Your task to perform on an android device: Open Youtube and go to the subscriptions tab Image 0: 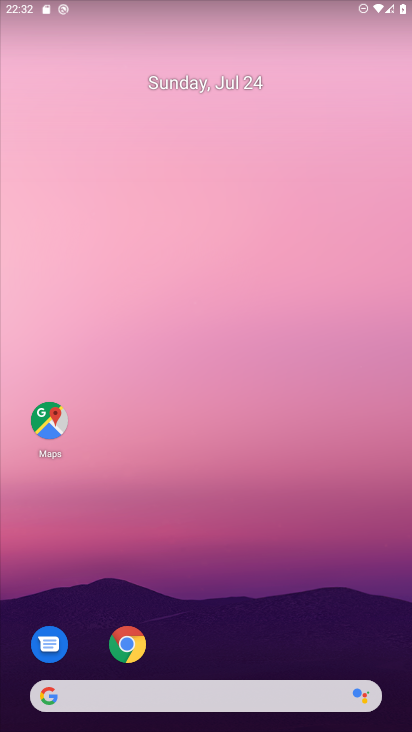
Step 0: drag from (383, 647) to (331, 18)
Your task to perform on an android device: Open Youtube and go to the subscriptions tab Image 1: 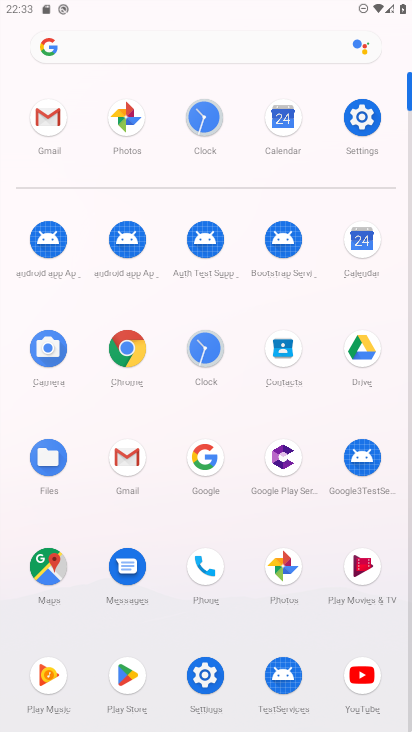
Step 1: click (364, 674)
Your task to perform on an android device: Open Youtube and go to the subscriptions tab Image 2: 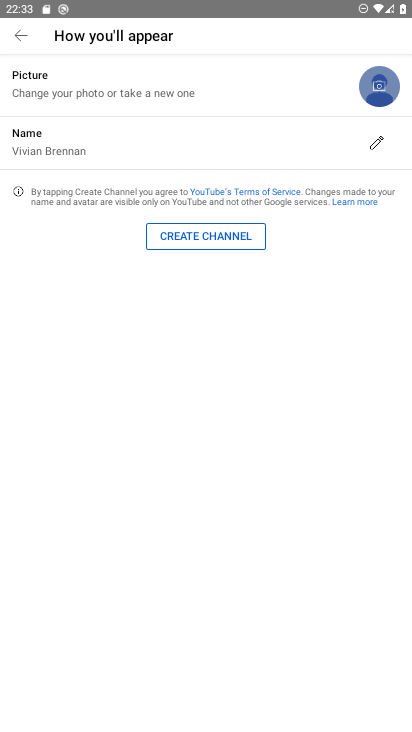
Step 2: press back button
Your task to perform on an android device: Open Youtube and go to the subscriptions tab Image 3: 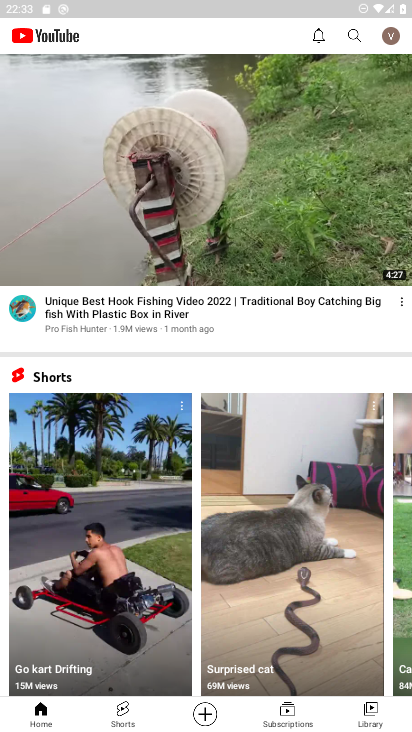
Step 3: click (291, 712)
Your task to perform on an android device: Open Youtube and go to the subscriptions tab Image 4: 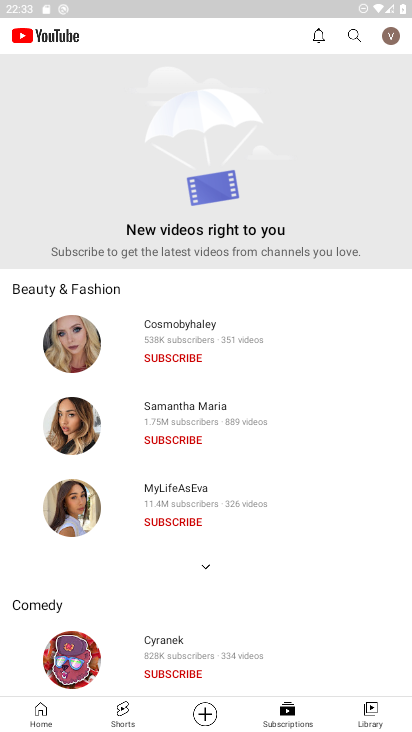
Step 4: task complete